Your task to perform on an android device: turn off location history Image 0: 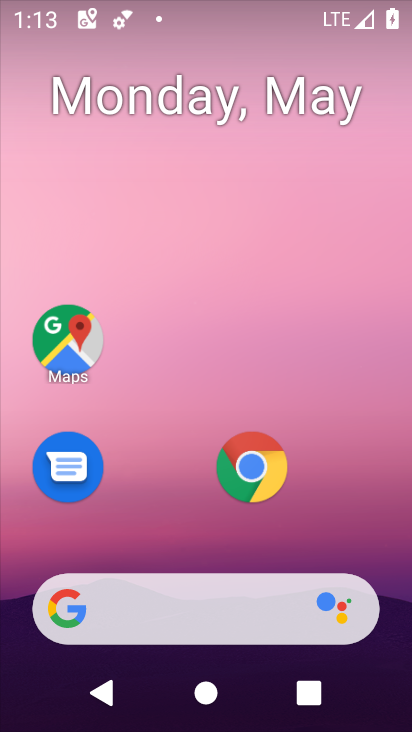
Step 0: click (35, 286)
Your task to perform on an android device: turn off location history Image 1: 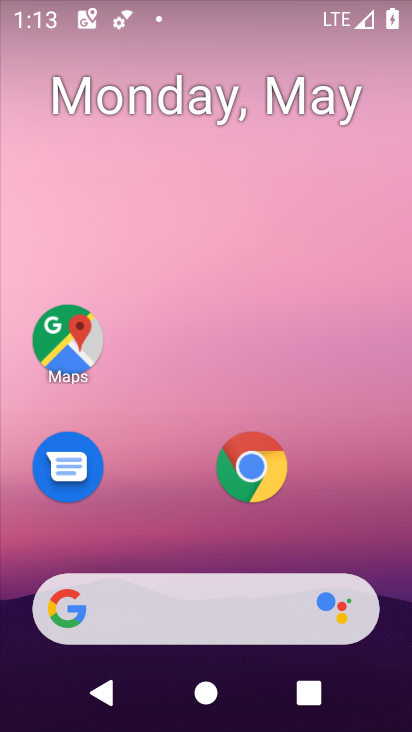
Step 1: drag from (205, 512) to (233, 65)
Your task to perform on an android device: turn off location history Image 2: 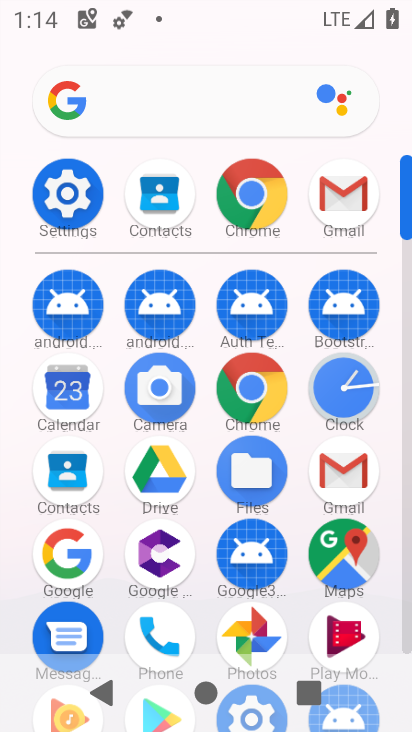
Step 2: click (70, 195)
Your task to perform on an android device: turn off location history Image 3: 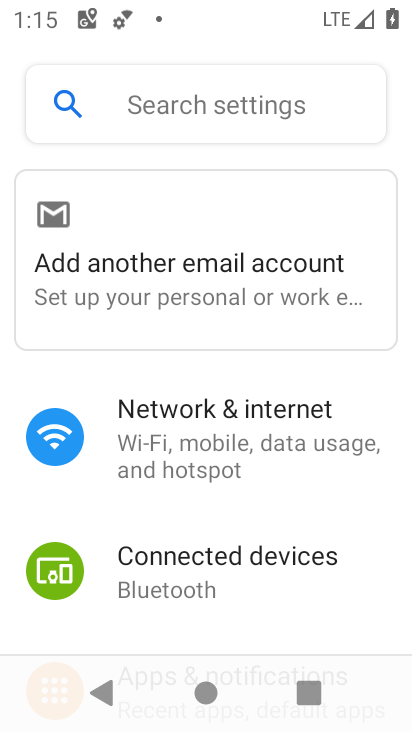
Step 3: drag from (247, 522) to (301, 6)
Your task to perform on an android device: turn off location history Image 4: 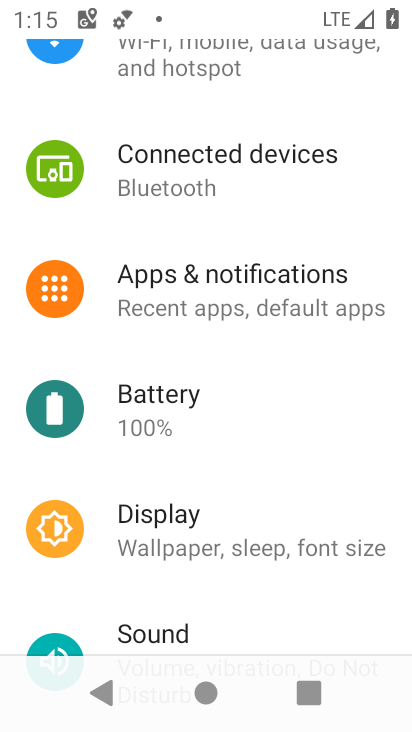
Step 4: drag from (220, 498) to (245, 196)
Your task to perform on an android device: turn off location history Image 5: 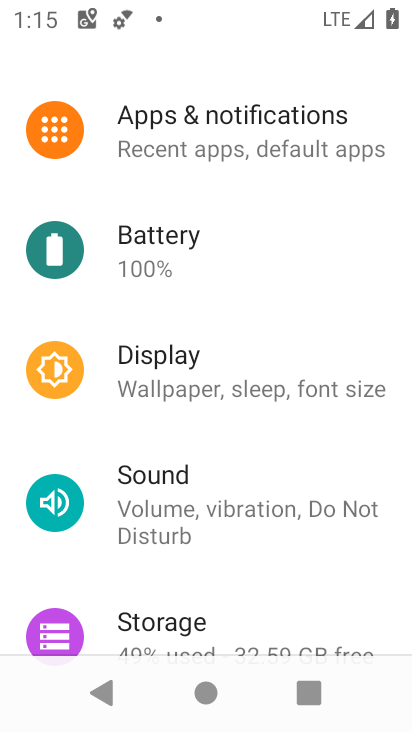
Step 5: drag from (185, 604) to (301, 127)
Your task to perform on an android device: turn off location history Image 6: 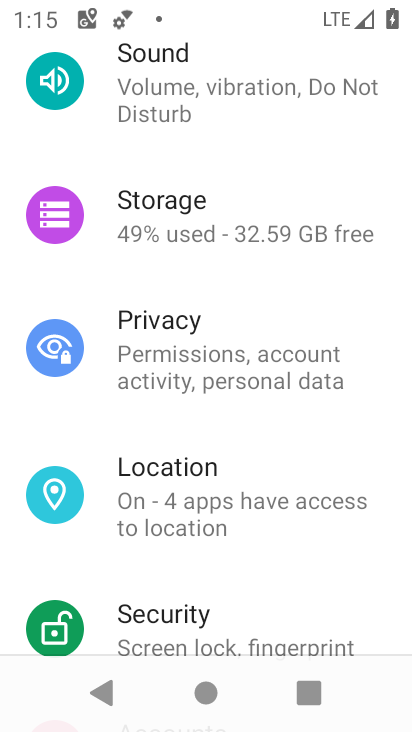
Step 6: drag from (200, 568) to (229, 381)
Your task to perform on an android device: turn off location history Image 7: 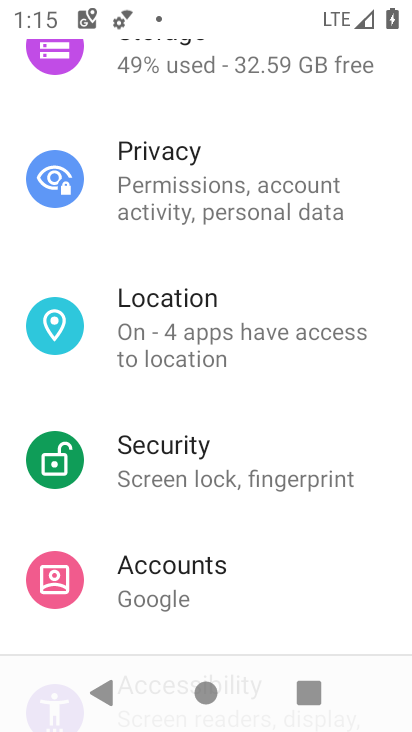
Step 7: click (194, 330)
Your task to perform on an android device: turn off location history Image 8: 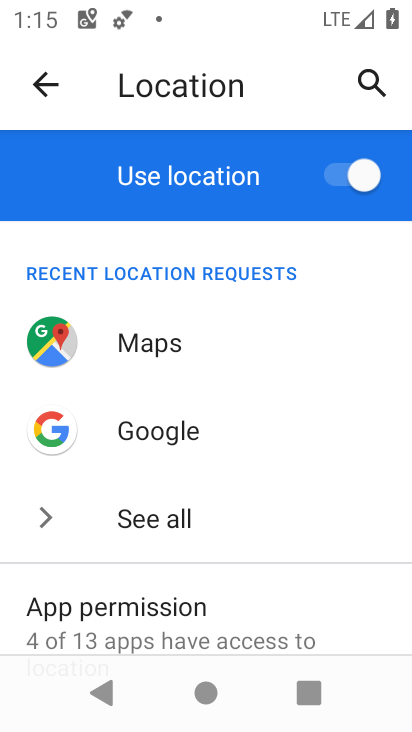
Step 8: click (361, 171)
Your task to perform on an android device: turn off location history Image 9: 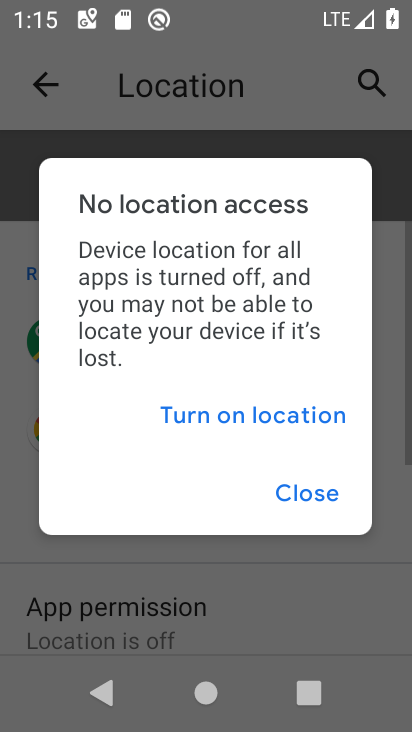
Step 9: click (347, 160)
Your task to perform on an android device: turn off location history Image 10: 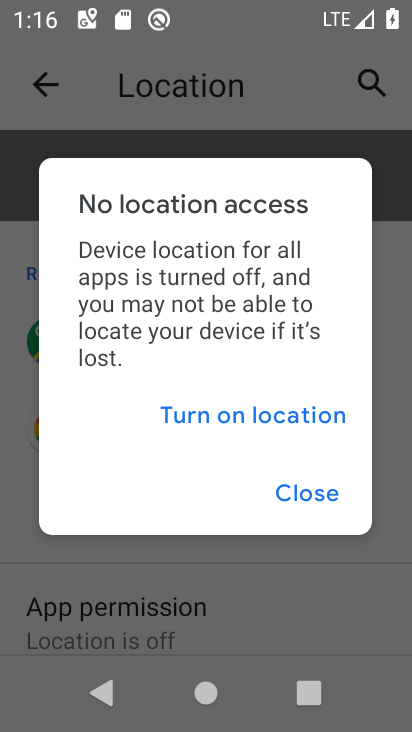
Step 10: click (237, 420)
Your task to perform on an android device: turn off location history Image 11: 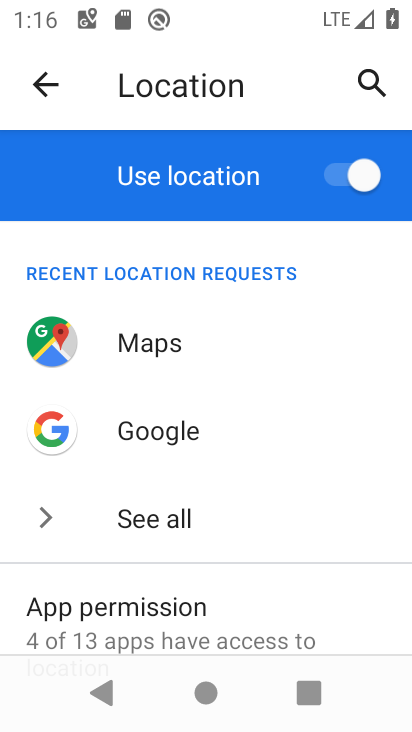
Step 11: click (34, 90)
Your task to perform on an android device: turn off location history Image 12: 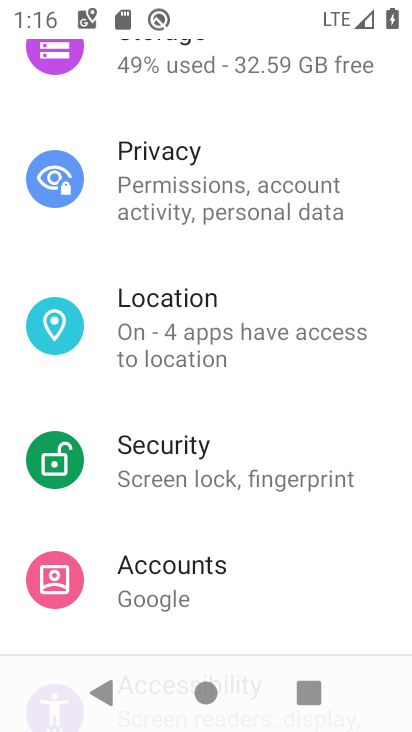
Step 12: drag from (222, 428) to (339, 26)
Your task to perform on an android device: turn off location history Image 13: 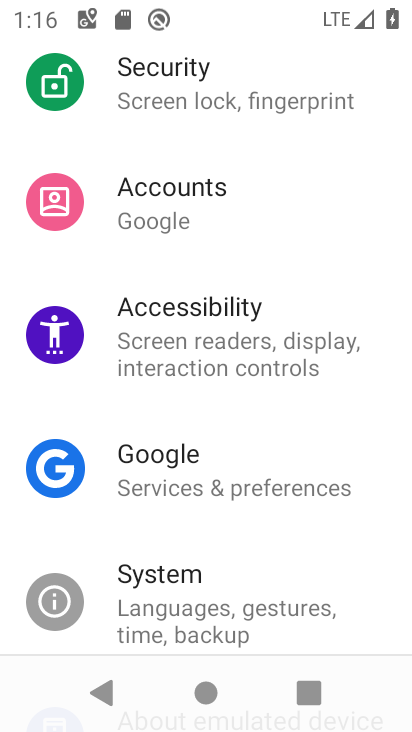
Step 13: drag from (220, 188) to (221, 522)
Your task to perform on an android device: turn off location history Image 14: 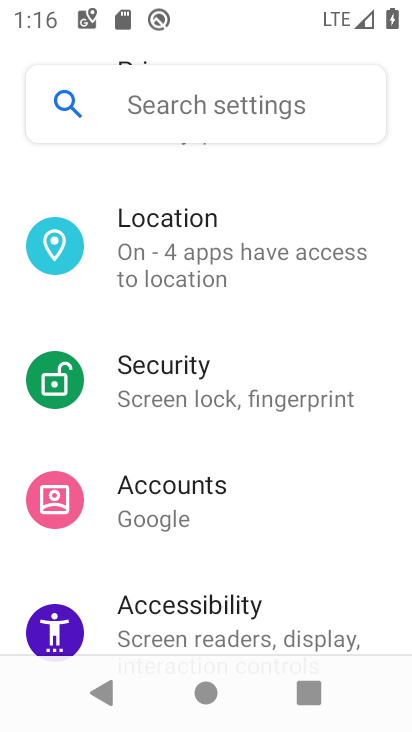
Step 14: click (121, 286)
Your task to perform on an android device: turn off location history Image 15: 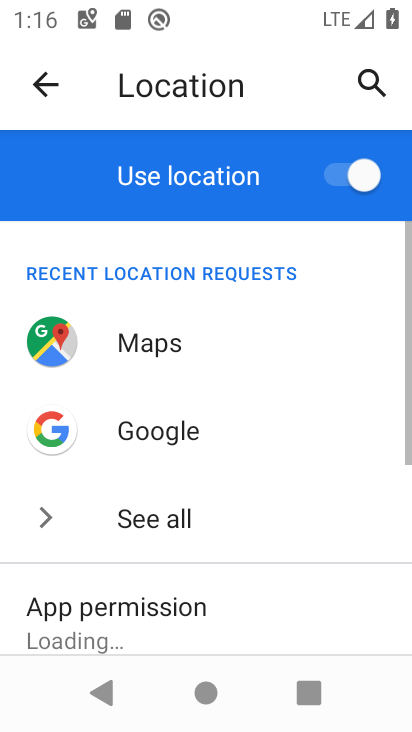
Step 15: drag from (256, 550) to (328, 97)
Your task to perform on an android device: turn off location history Image 16: 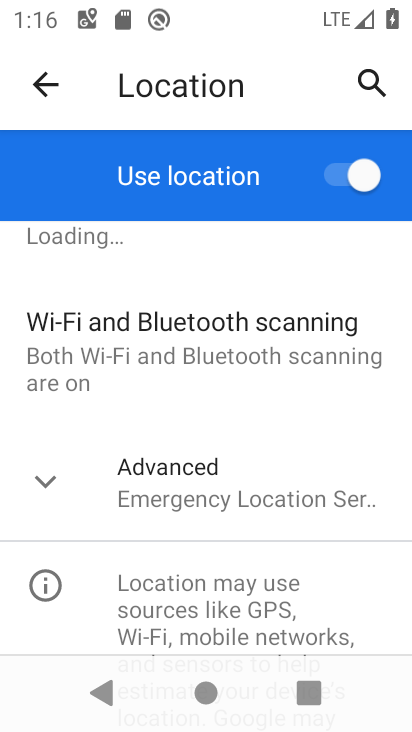
Step 16: click (159, 524)
Your task to perform on an android device: turn off location history Image 17: 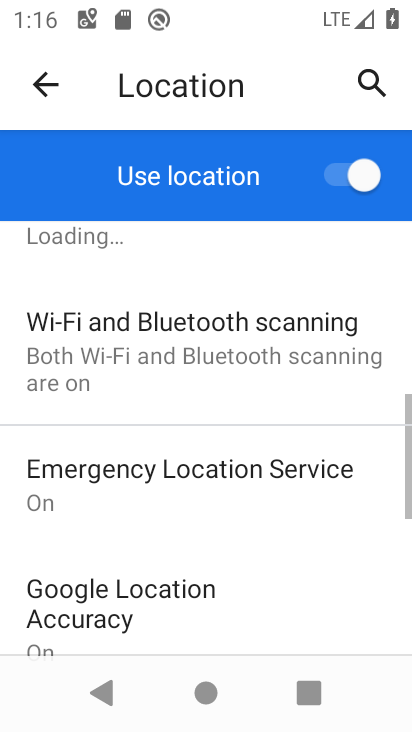
Step 17: drag from (178, 520) to (174, 216)
Your task to perform on an android device: turn off location history Image 18: 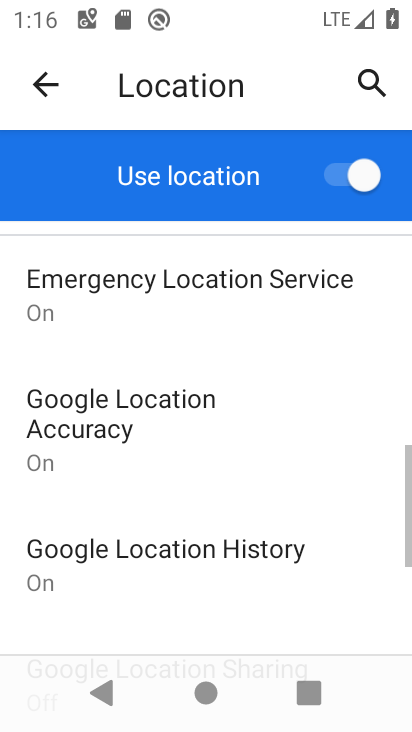
Step 18: drag from (226, 561) to (227, 330)
Your task to perform on an android device: turn off location history Image 19: 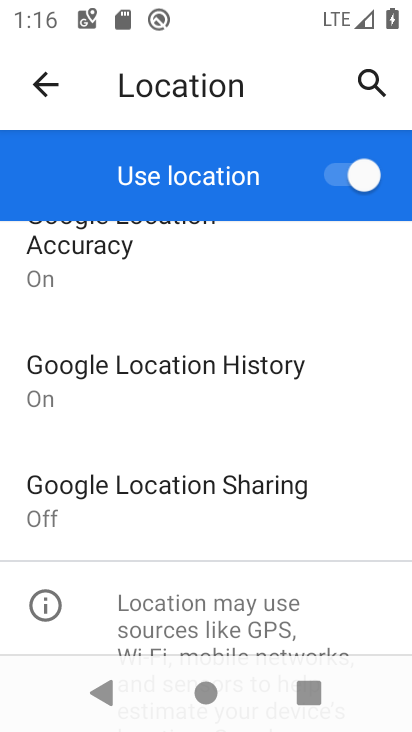
Step 19: click (209, 366)
Your task to perform on an android device: turn off location history Image 20: 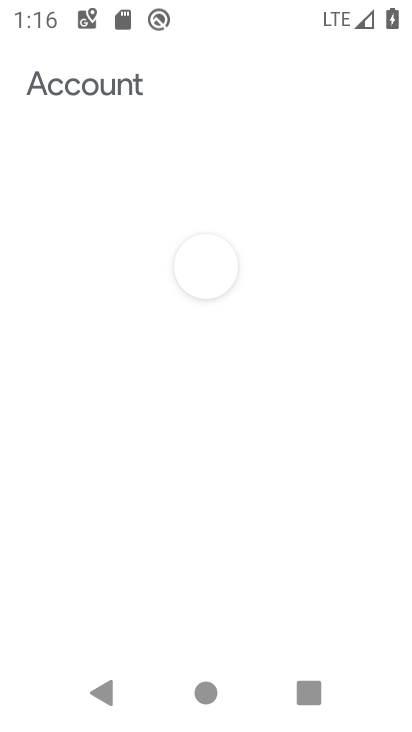
Step 20: drag from (218, 482) to (268, 119)
Your task to perform on an android device: turn off location history Image 21: 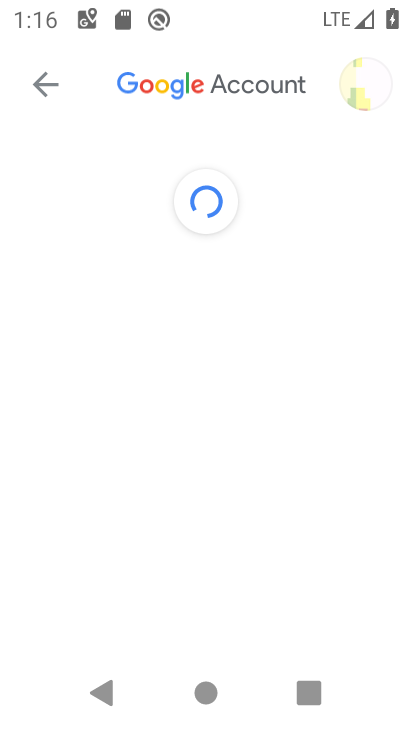
Step 21: drag from (214, 457) to (241, 132)
Your task to perform on an android device: turn off location history Image 22: 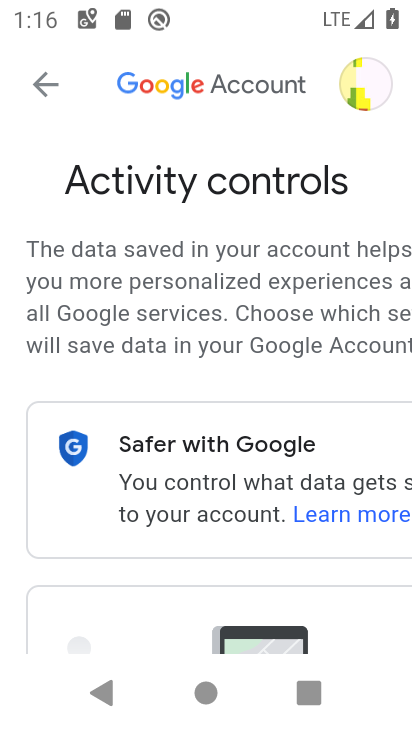
Step 22: drag from (174, 557) to (373, 29)
Your task to perform on an android device: turn off location history Image 23: 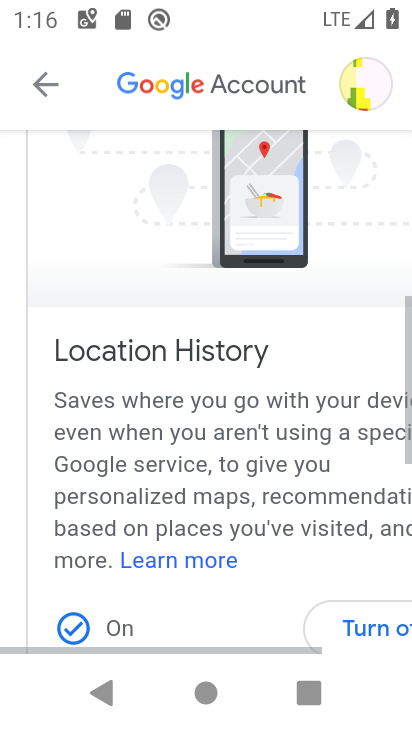
Step 23: drag from (248, 539) to (259, 360)
Your task to perform on an android device: turn off location history Image 24: 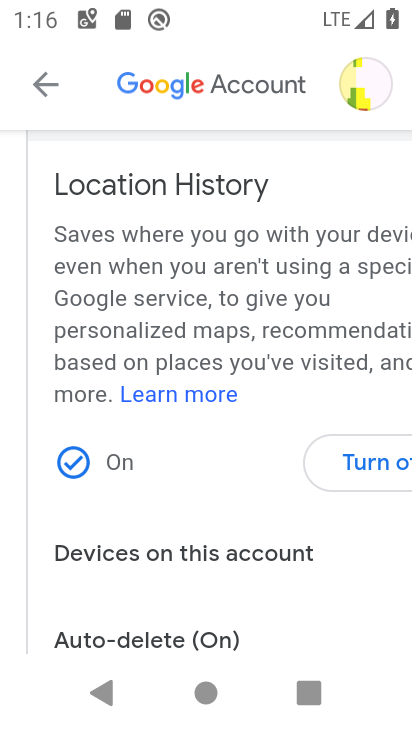
Step 24: click (339, 467)
Your task to perform on an android device: turn off location history Image 25: 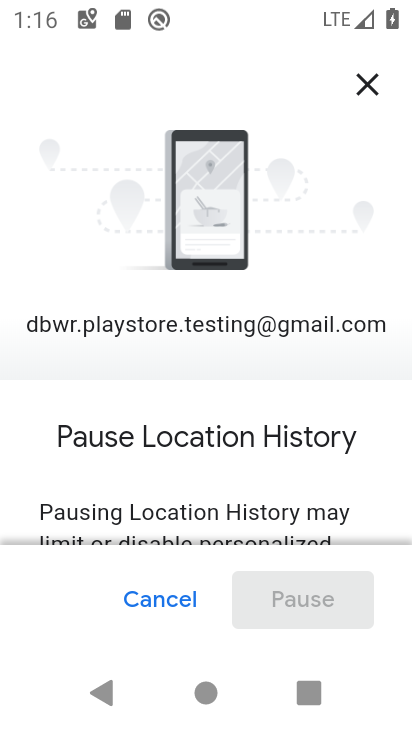
Step 25: drag from (212, 491) to (271, 29)
Your task to perform on an android device: turn off location history Image 26: 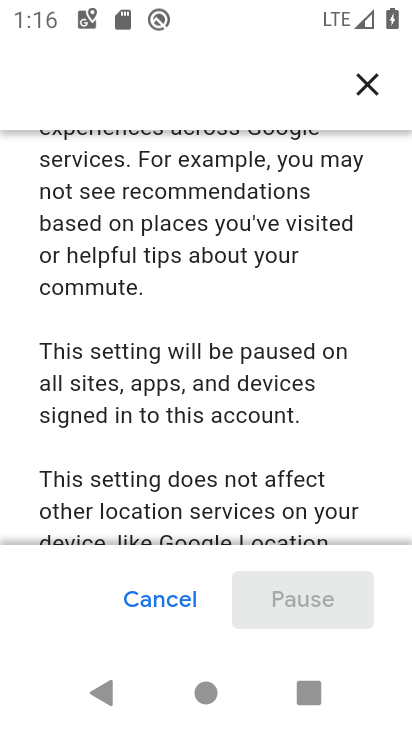
Step 26: drag from (159, 457) to (214, 80)
Your task to perform on an android device: turn off location history Image 27: 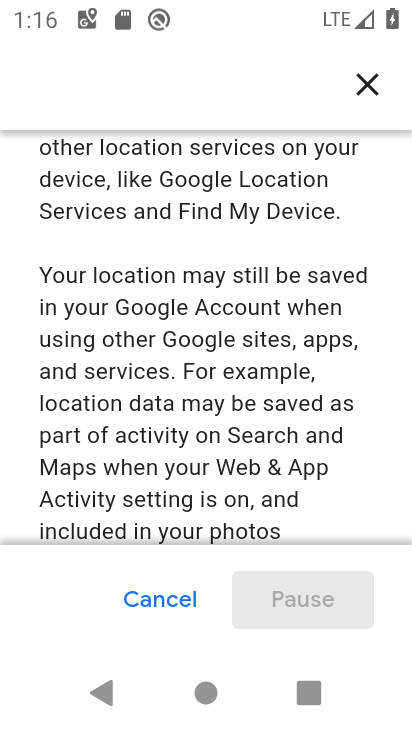
Step 27: drag from (202, 461) to (284, 27)
Your task to perform on an android device: turn off location history Image 28: 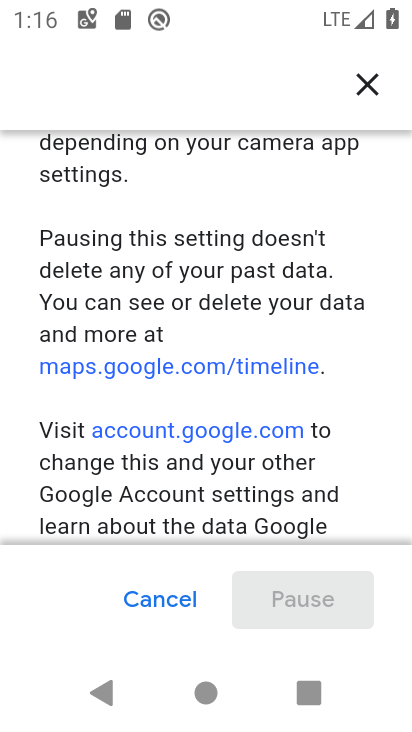
Step 28: drag from (202, 447) to (298, 85)
Your task to perform on an android device: turn off location history Image 29: 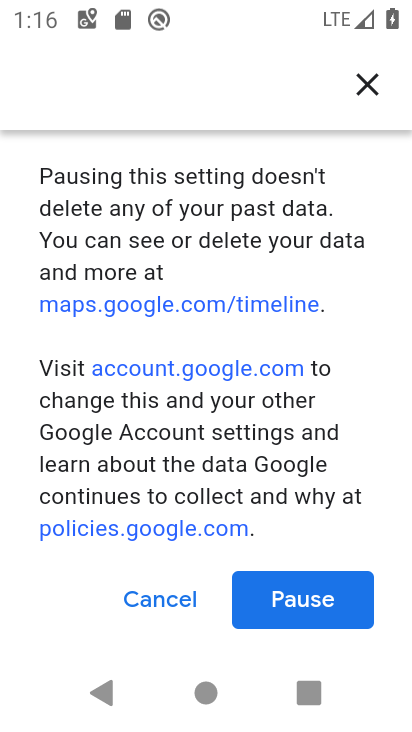
Step 29: click (289, 586)
Your task to perform on an android device: turn off location history Image 30: 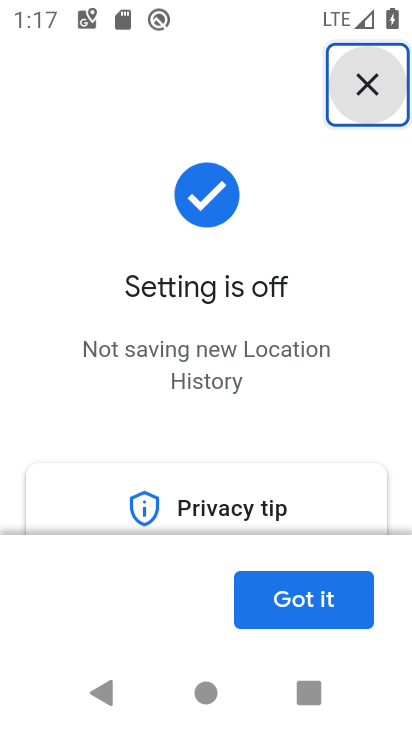
Step 30: click (281, 595)
Your task to perform on an android device: turn off location history Image 31: 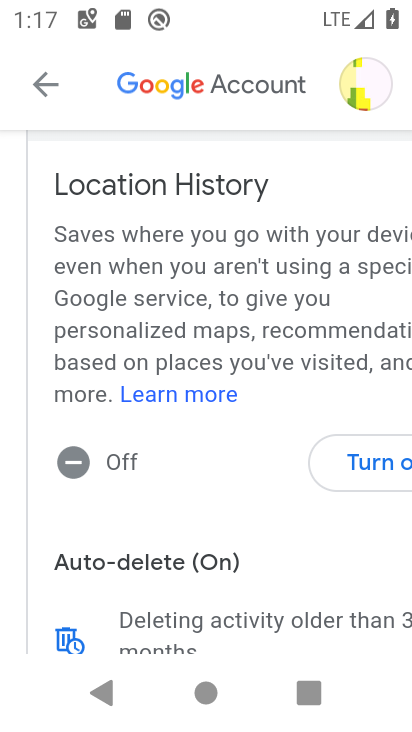
Step 31: task complete